Your task to perform on an android device: allow cookies in the chrome app Image 0: 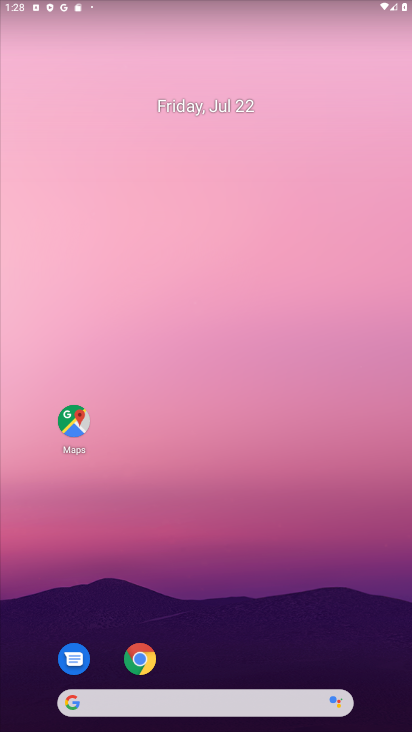
Step 0: press home button
Your task to perform on an android device: allow cookies in the chrome app Image 1: 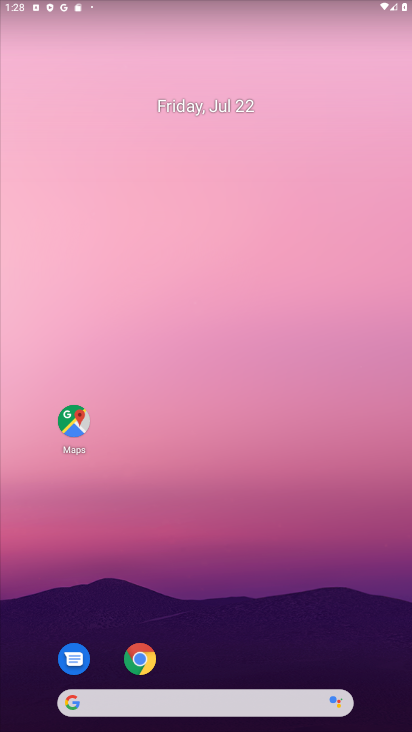
Step 1: click (131, 646)
Your task to perform on an android device: allow cookies in the chrome app Image 2: 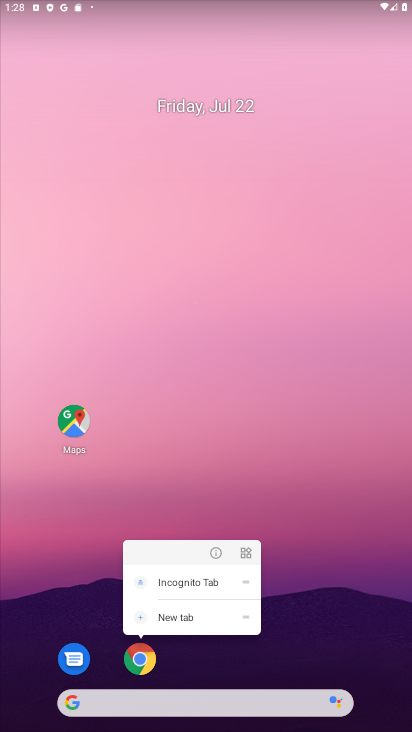
Step 2: click (140, 653)
Your task to perform on an android device: allow cookies in the chrome app Image 3: 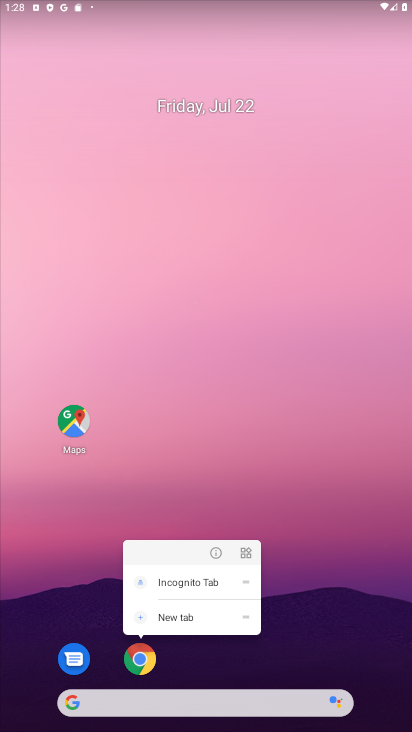
Step 3: click (144, 659)
Your task to perform on an android device: allow cookies in the chrome app Image 4: 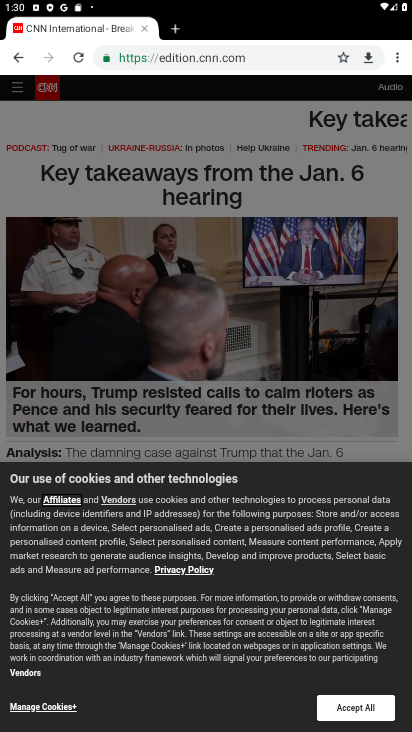
Step 4: task complete